Your task to perform on an android device: Find coffee shops on Maps Image 0: 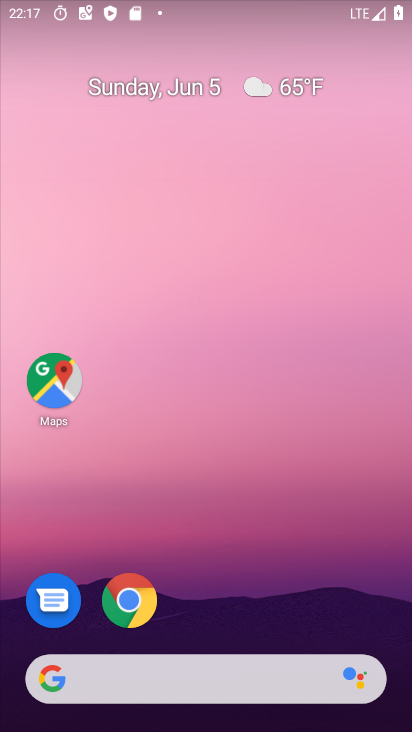
Step 0: click (60, 384)
Your task to perform on an android device: Find coffee shops on Maps Image 1: 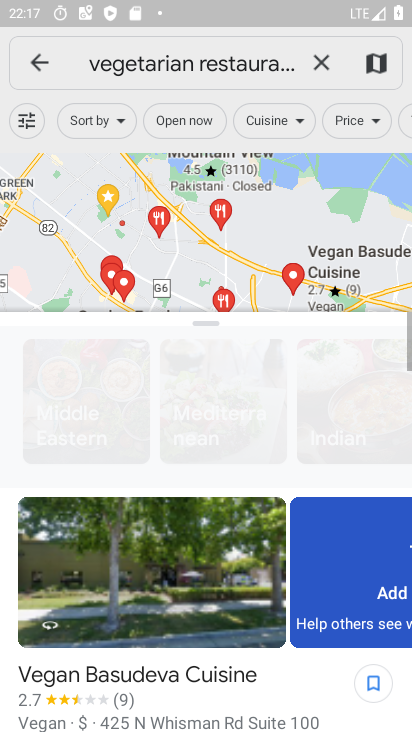
Step 1: click (263, 54)
Your task to perform on an android device: Find coffee shops on Maps Image 2: 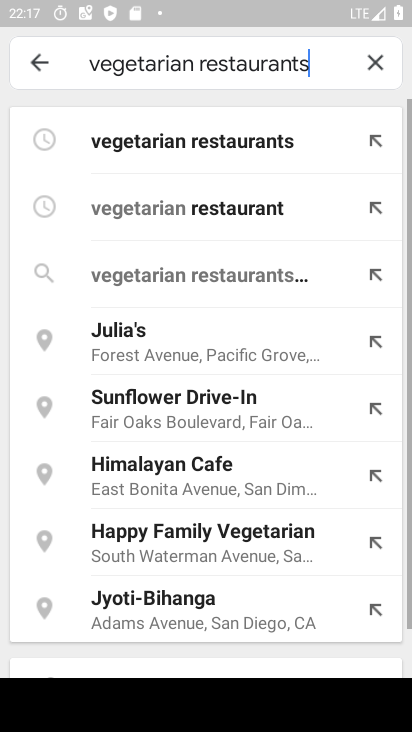
Step 2: click (370, 58)
Your task to perform on an android device: Find coffee shops on Maps Image 3: 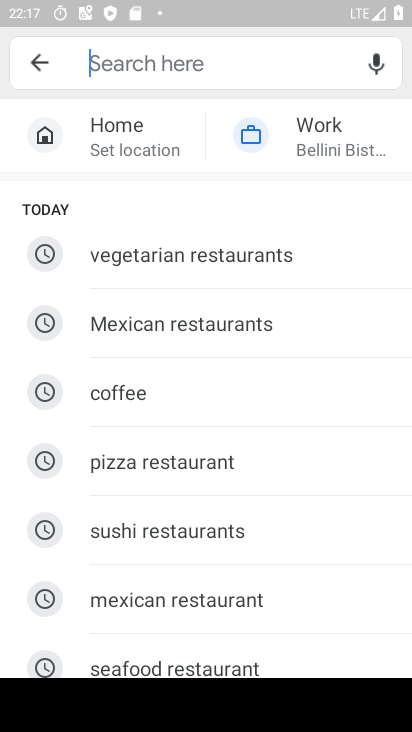
Step 3: type "coffee shops"
Your task to perform on an android device: Find coffee shops on Maps Image 4: 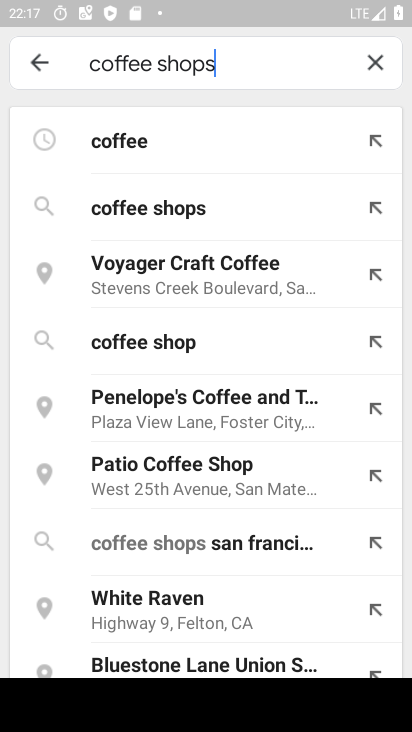
Step 4: click (194, 206)
Your task to perform on an android device: Find coffee shops on Maps Image 5: 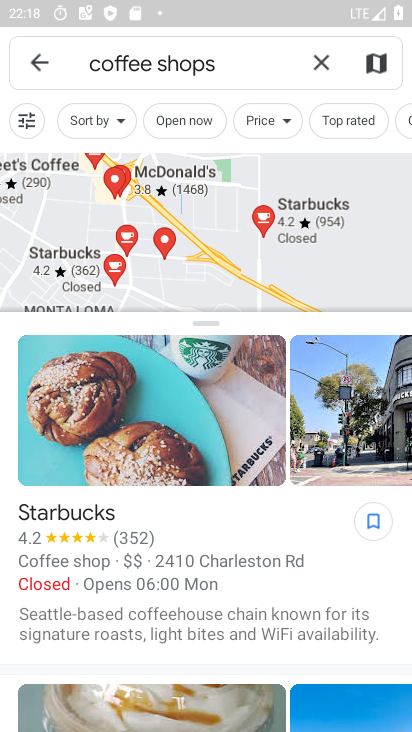
Step 5: task complete